Your task to perform on an android device: Go to Google Image 0: 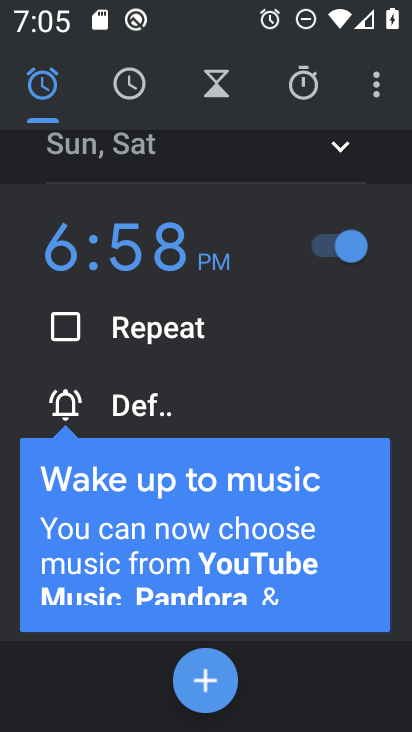
Step 0: press home button
Your task to perform on an android device: Go to Google Image 1: 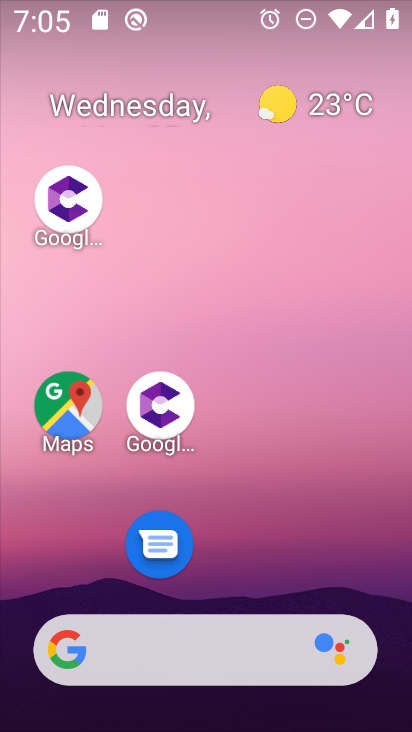
Step 1: click (61, 647)
Your task to perform on an android device: Go to Google Image 2: 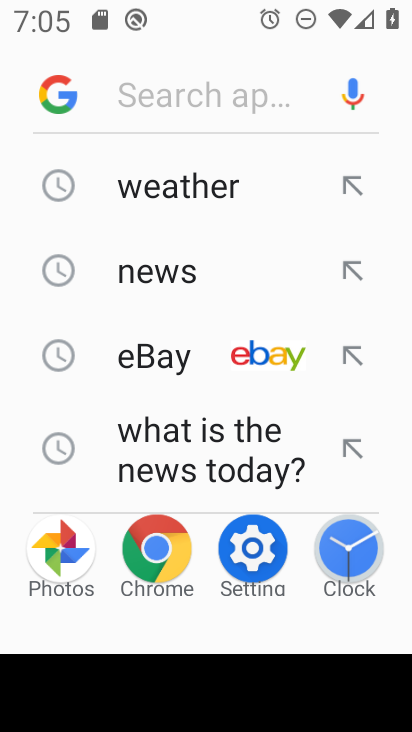
Step 2: click (64, 96)
Your task to perform on an android device: Go to Google Image 3: 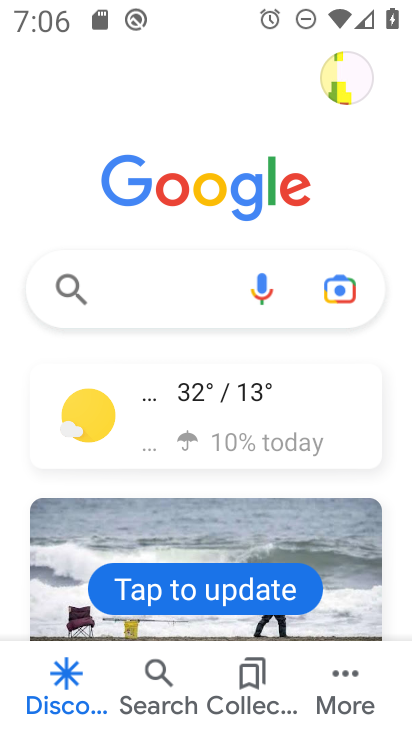
Step 3: task complete